Your task to perform on an android device: Go to Android settings Image 0: 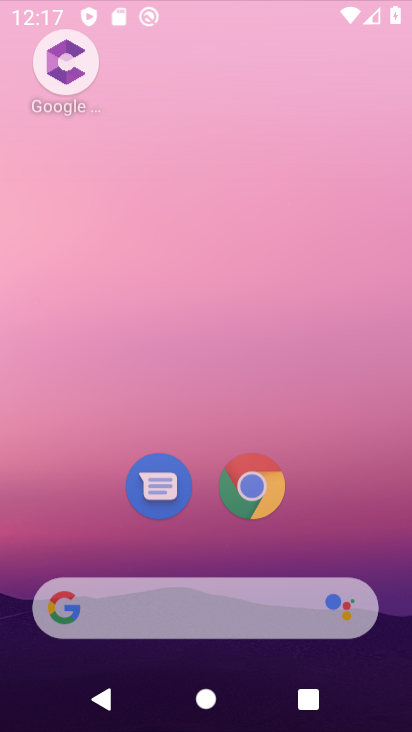
Step 0: click (136, 426)
Your task to perform on an android device: Go to Android settings Image 1: 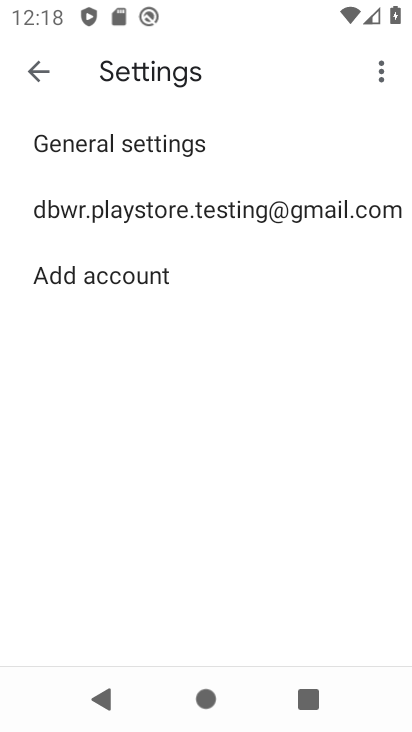
Step 1: click (164, 525)
Your task to perform on an android device: Go to Android settings Image 2: 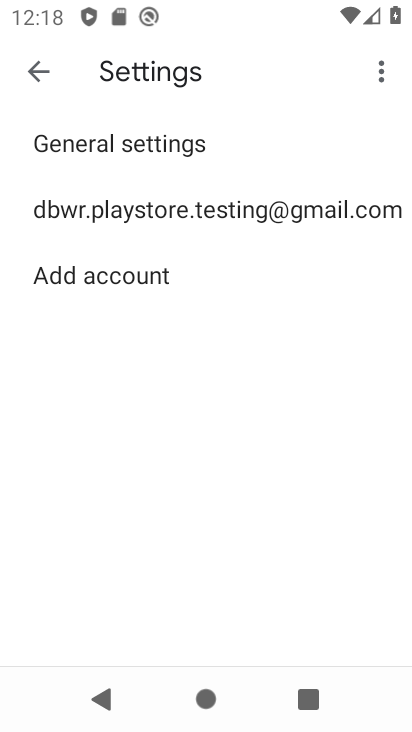
Step 2: task complete